Your task to perform on an android device: open a bookmark in the chrome app Image 0: 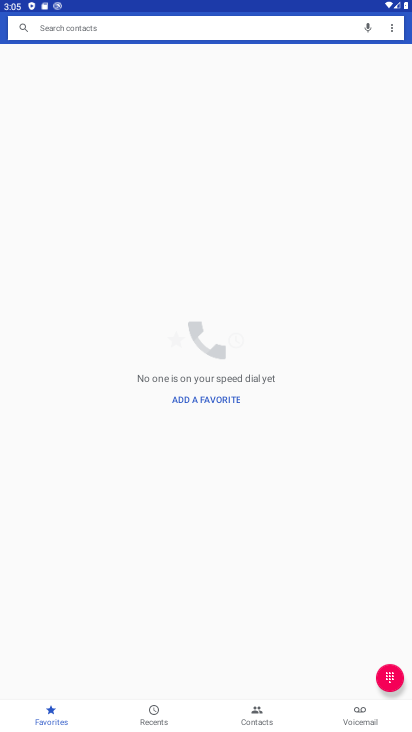
Step 0: drag from (219, 707) to (142, 203)
Your task to perform on an android device: open a bookmark in the chrome app Image 1: 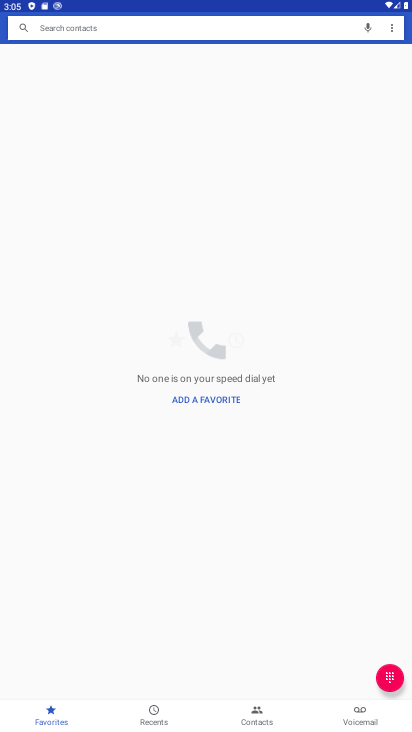
Step 1: press home button
Your task to perform on an android device: open a bookmark in the chrome app Image 2: 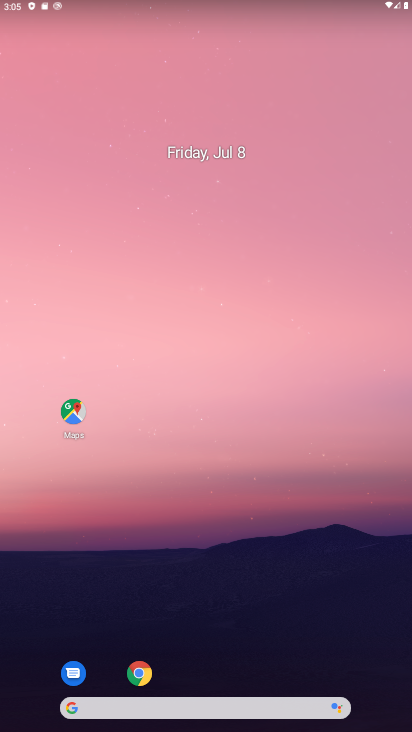
Step 2: drag from (198, 705) to (126, 201)
Your task to perform on an android device: open a bookmark in the chrome app Image 3: 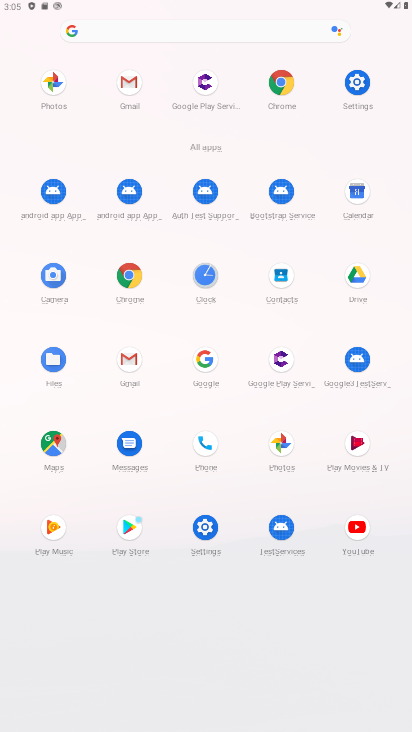
Step 3: click (278, 97)
Your task to perform on an android device: open a bookmark in the chrome app Image 4: 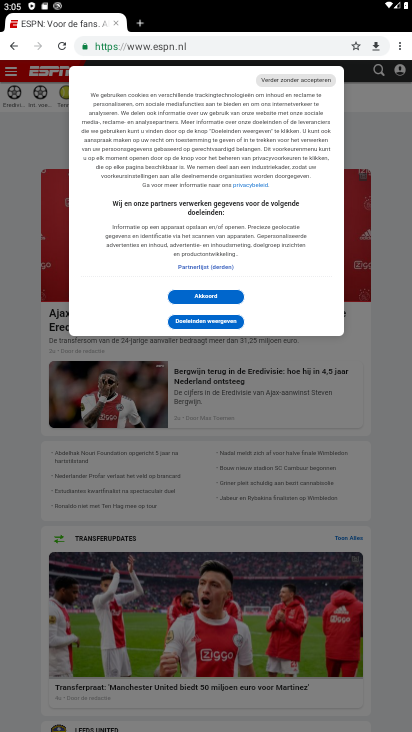
Step 4: drag from (400, 49) to (345, 96)
Your task to perform on an android device: open a bookmark in the chrome app Image 5: 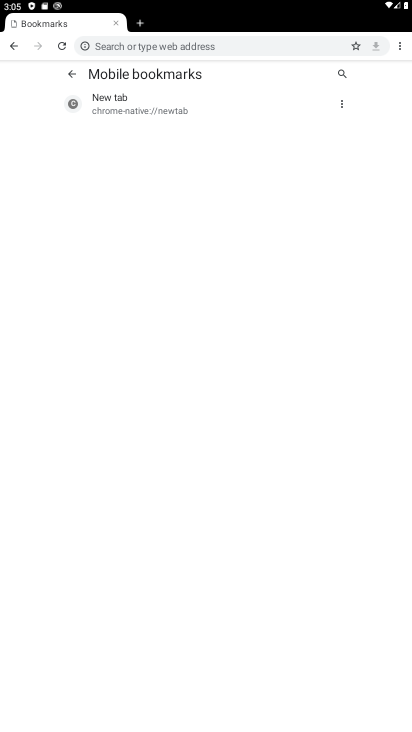
Step 5: click (157, 106)
Your task to perform on an android device: open a bookmark in the chrome app Image 6: 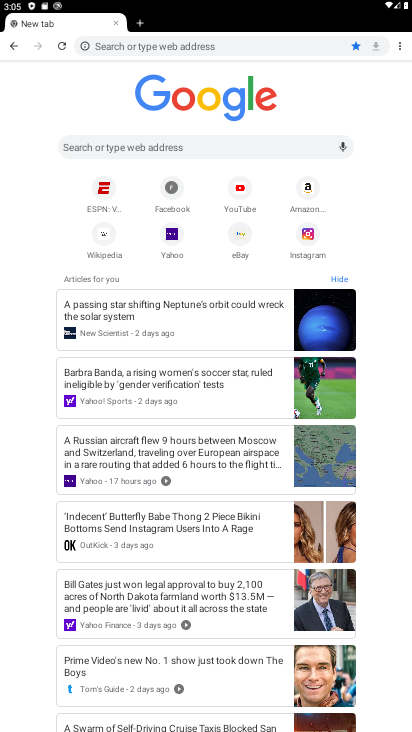
Step 6: task complete